Your task to perform on an android device: turn on bluetooth scan Image 0: 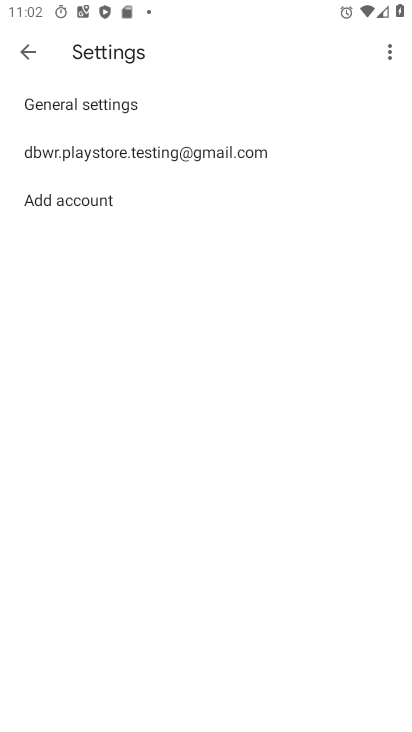
Step 0: press home button
Your task to perform on an android device: turn on bluetooth scan Image 1: 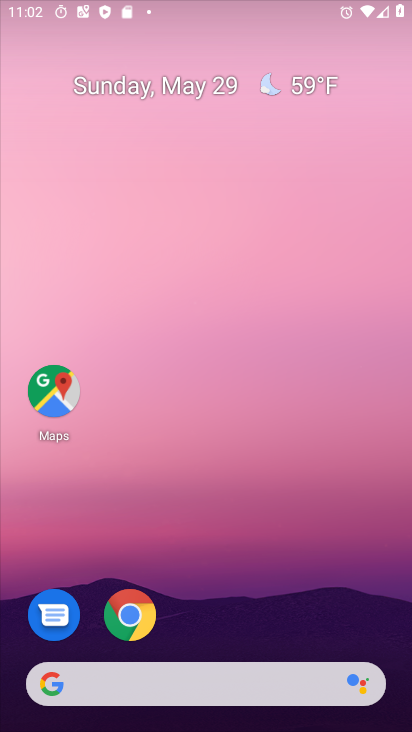
Step 1: drag from (250, 617) to (264, 117)
Your task to perform on an android device: turn on bluetooth scan Image 2: 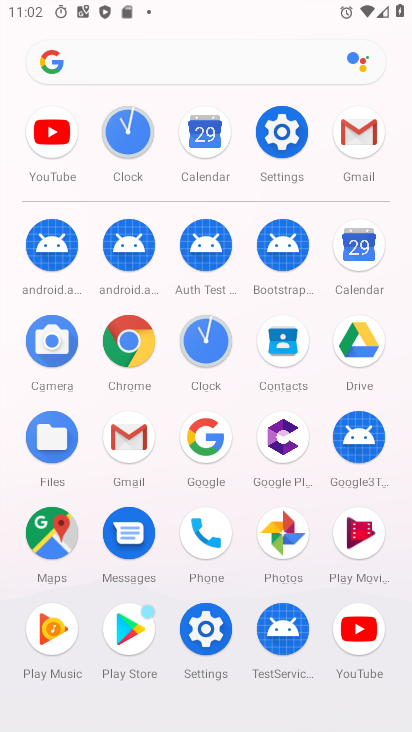
Step 2: click (282, 136)
Your task to perform on an android device: turn on bluetooth scan Image 3: 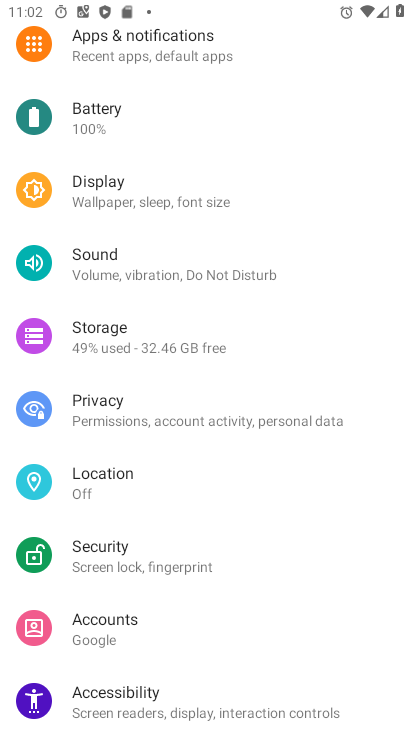
Step 3: click (126, 480)
Your task to perform on an android device: turn on bluetooth scan Image 4: 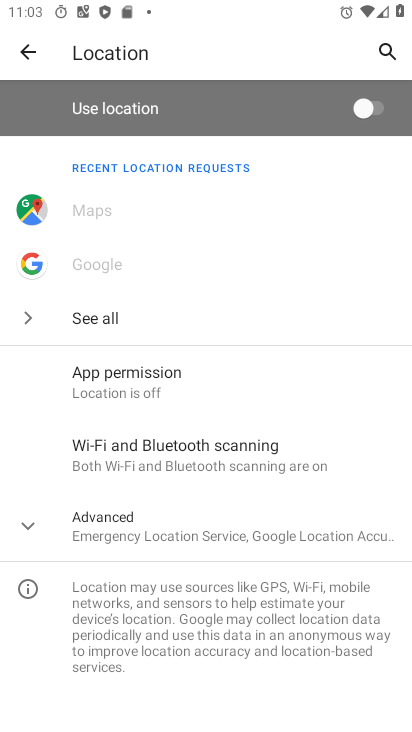
Step 4: click (184, 470)
Your task to perform on an android device: turn on bluetooth scan Image 5: 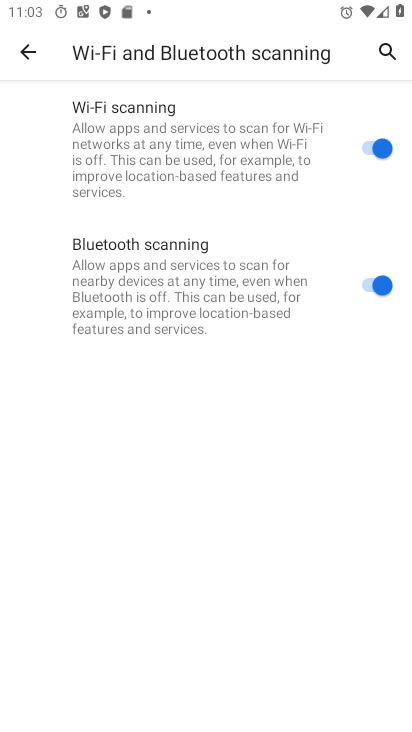
Step 5: task complete